Your task to perform on an android device: What's the weather going to be this weekend? Image 0: 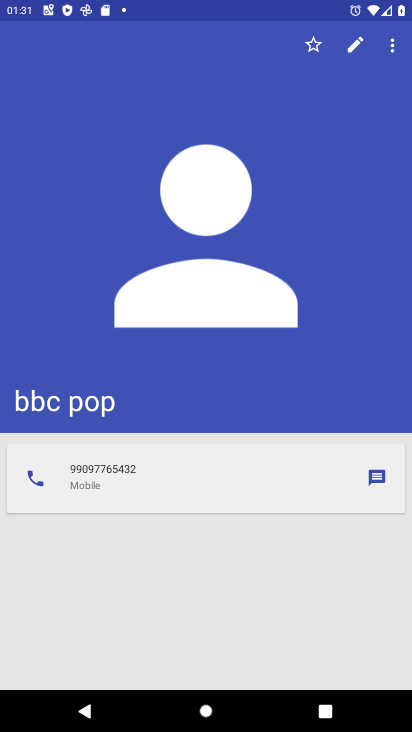
Step 0: press home button
Your task to perform on an android device: What's the weather going to be this weekend? Image 1: 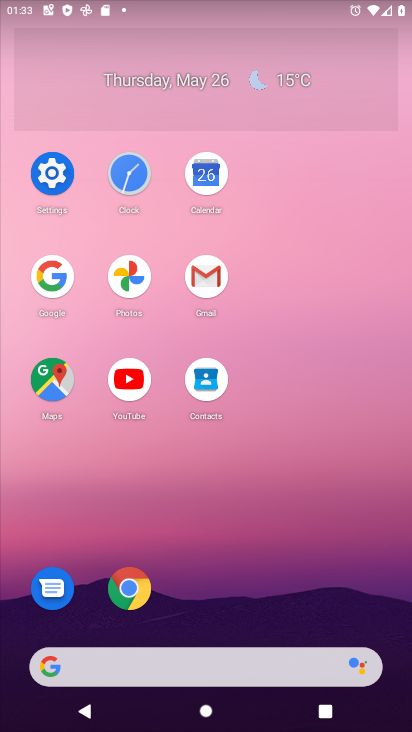
Step 1: click (64, 265)
Your task to perform on an android device: What's the weather going to be this weekend? Image 2: 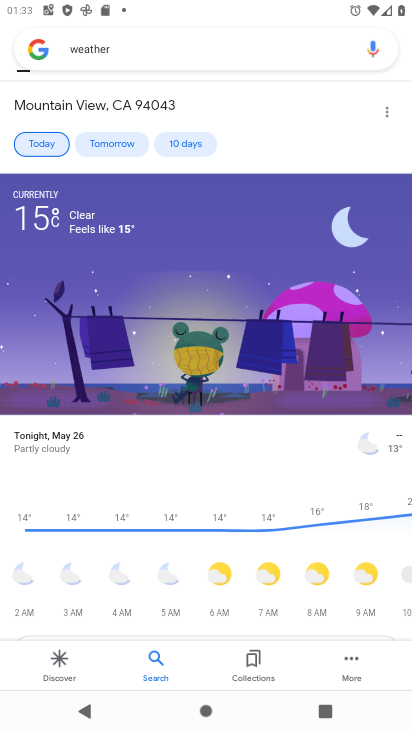
Step 2: click (200, 41)
Your task to perform on an android device: What's the weather going to be this weekend? Image 3: 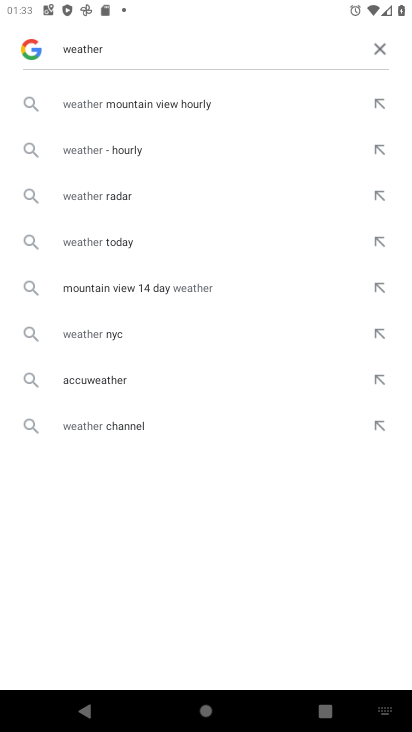
Step 3: click (376, 60)
Your task to perform on an android device: What's the weather going to be this weekend? Image 4: 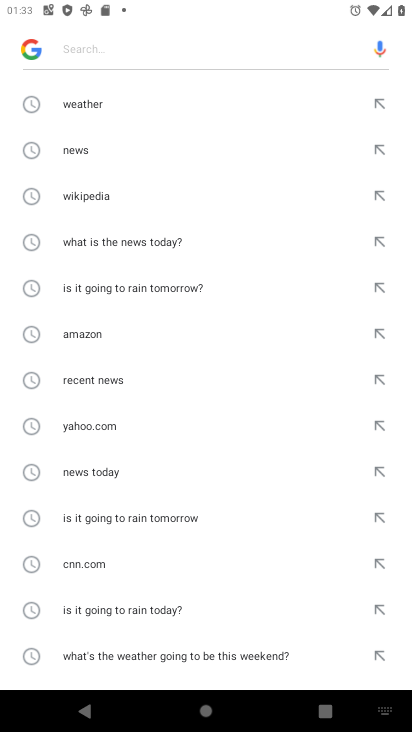
Step 4: click (90, 110)
Your task to perform on an android device: What's the weather going to be this weekend? Image 5: 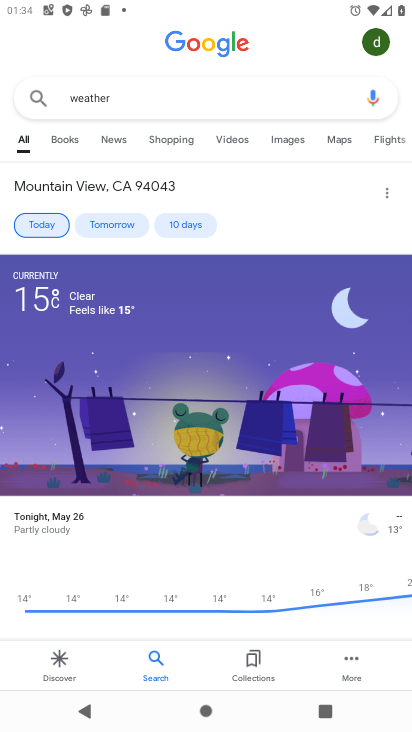
Step 5: click (193, 221)
Your task to perform on an android device: What's the weather going to be this weekend? Image 6: 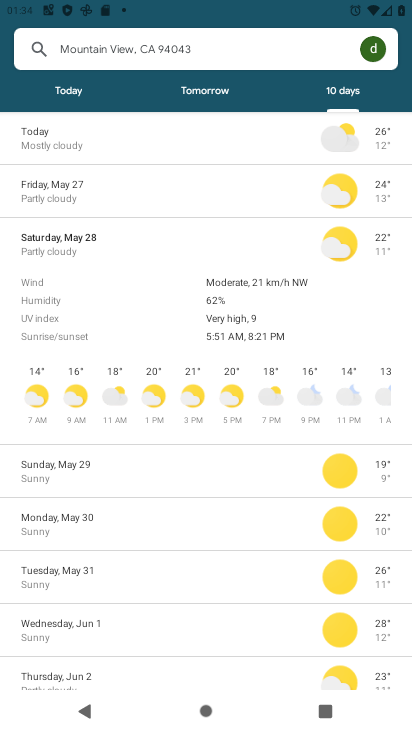
Step 6: click (135, 486)
Your task to perform on an android device: What's the weather going to be this weekend? Image 7: 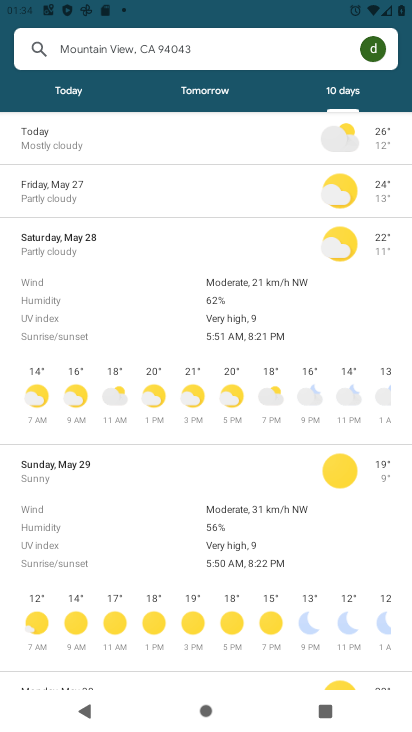
Step 7: task complete